Your task to perform on an android device: turn off improve location accuracy Image 0: 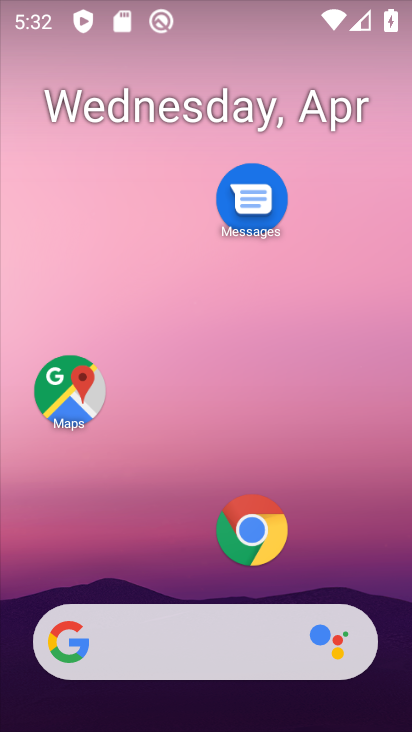
Step 0: drag from (178, 569) to (181, 43)
Your task to perform on an android device: turn off improve location accuracy Image 1: 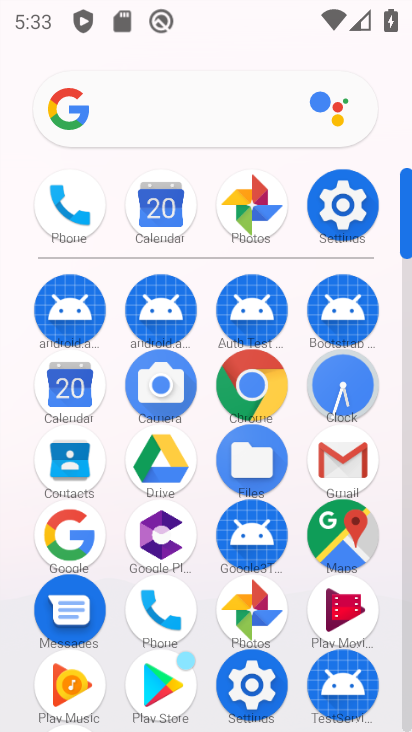
Step 1: click (345, 208)
Your task to perform on an android device: turn off improve location accuracy Image 2: 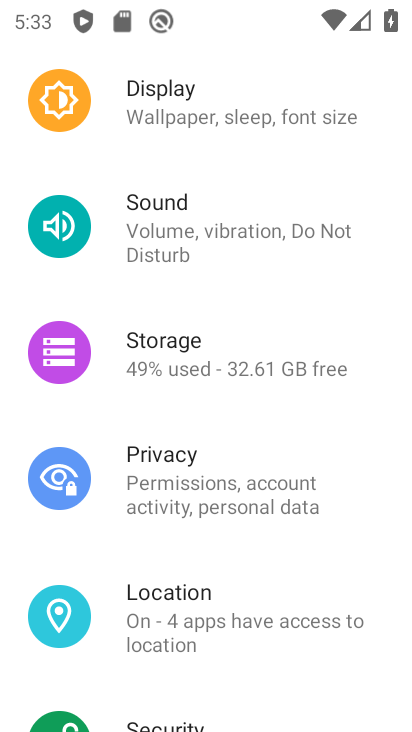
Step 2: click (188, 609)
Your task to perform on an android device: turn off improve location accuracy Image 3: 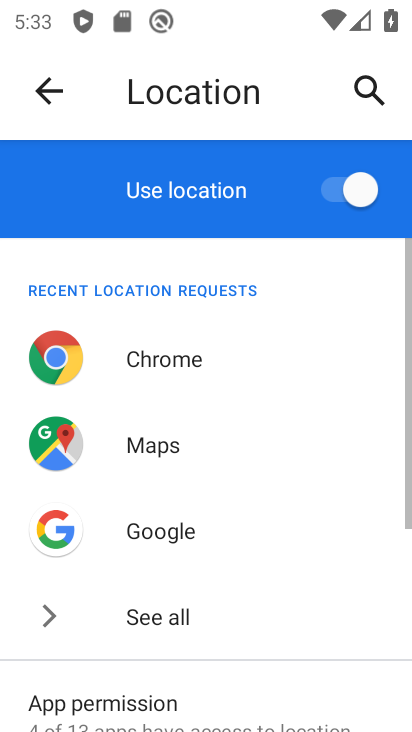
Step 3: drag from (230, 534) to (262, 402)
Your task to perform on an android device: turn off improve location accuracy Image 4: 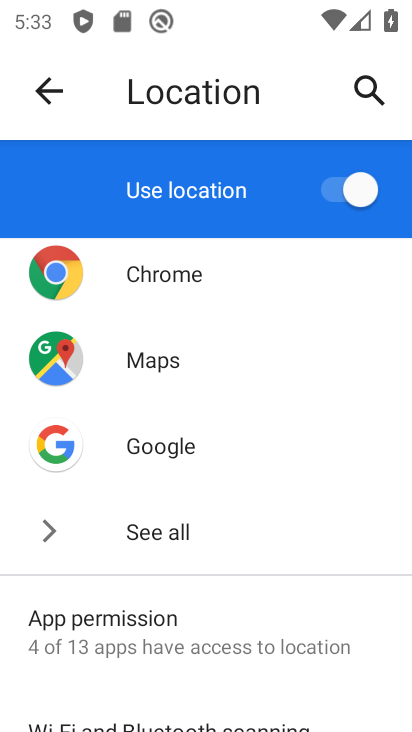
Step 4: drag from (236, 557) to (260, 444)
Your task to perform on an android device: turn off improve location accuracy Image 5: 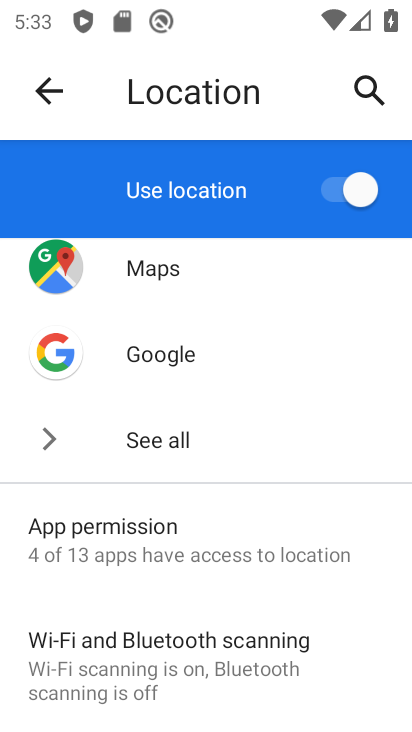
Step 5: drag from (195, 582) to (227, 444)
Your task to perform on an android device: turn off improve location accuracy Image 6: 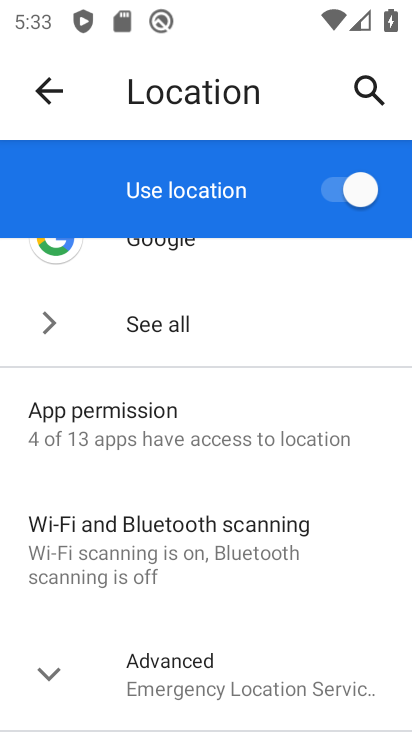
Step 6: drag from (194, 589) to (240, 438)
Your task to perform on an android device: turn off improve location accuracy Image 7: 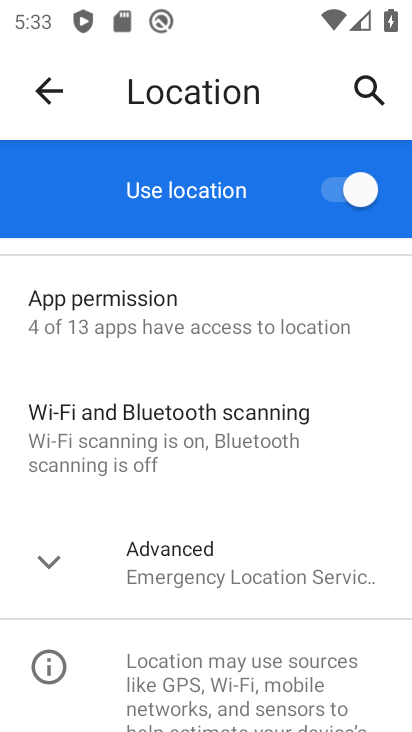
Step 7: click (246, 568)
Your task to perform on an android device: turn off improve location accuracy Image 8: 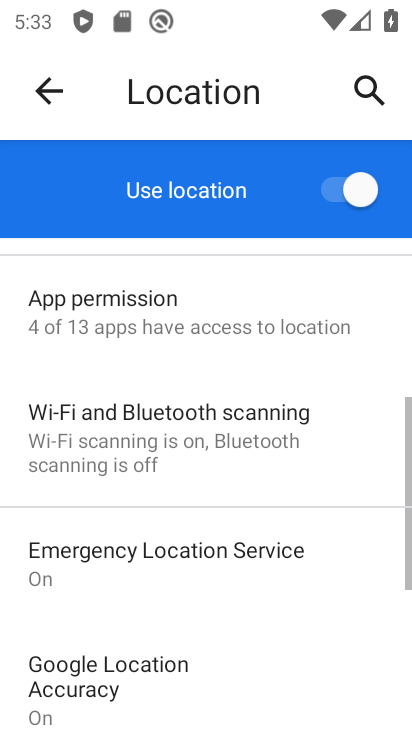
Step 8: drag from (232, 591) to (288, 457)
Your task to perform on an android device: turn off improve location accuracy Image 9: 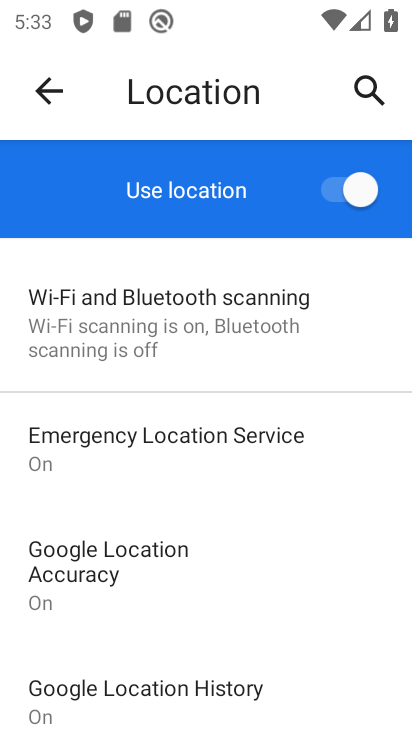
Step 9: click (161, 559)
Your task to perform on an android device: turn off improve location accuracy Image 10: 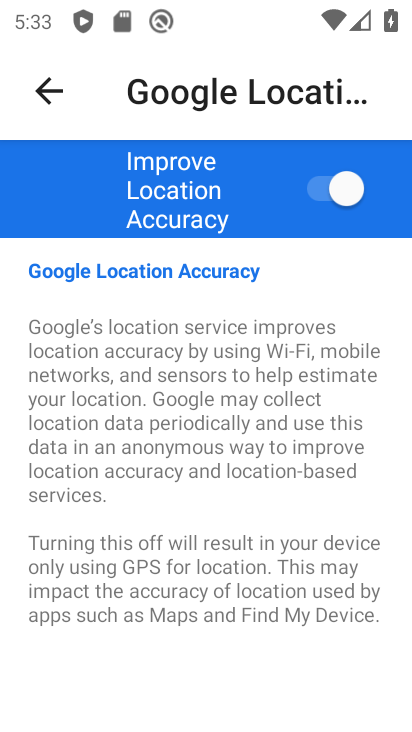
Step 10: click (351, 193)
Your task to perform on an android device: turn off improve location accuracy Image 11: 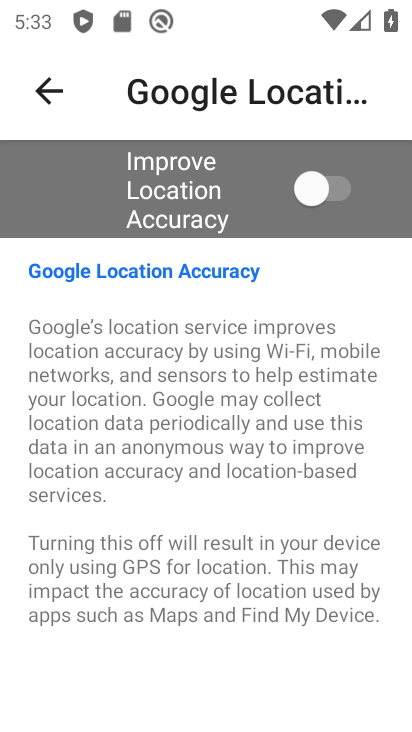
Step 11: task complete